Your task to perform on an android device: search for starred emails in the gmail app Image 0: 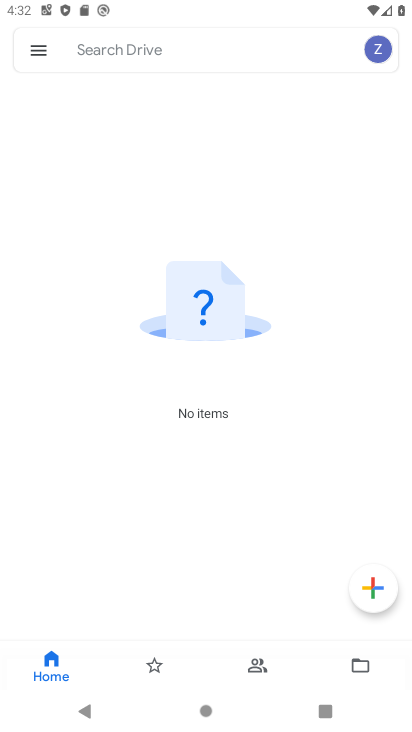
Step 0: press home button
Your task to perform on an android device: search for starred emails in the gmail app Image 1: 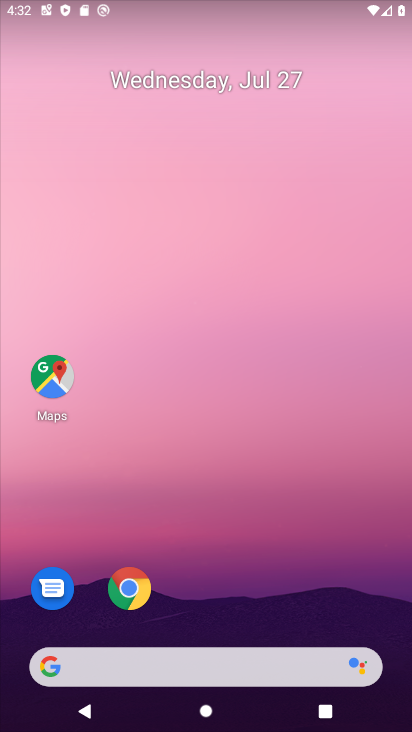
Step 1: drag from (231, 728) to (242, 82)
Your task to perform on an android device: search for starred emails in the gmail app Image 2: 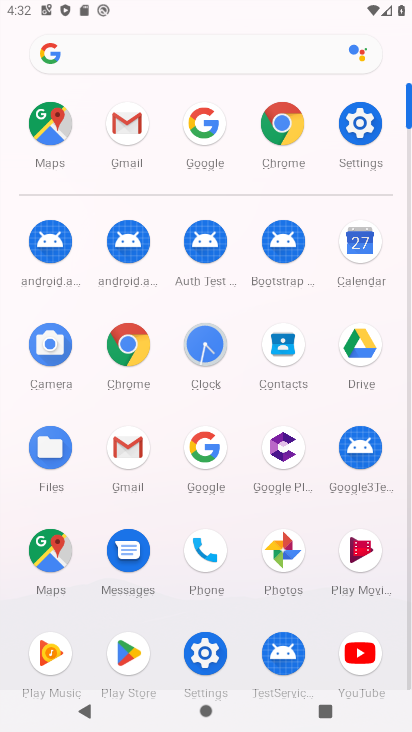
Step 2: click (129, 448)
Your task to perform on an android device: search for starred emails in the gmail app Image 3: 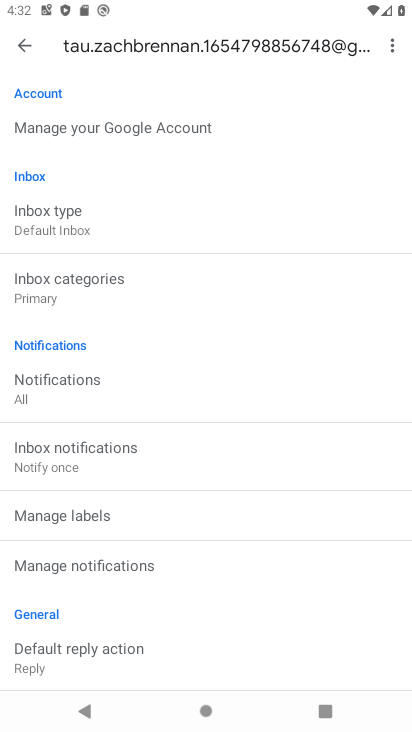
Step 3: click (24, 45)
Your task to perform on an android device: search for starred emails in the gmail app Image 4: 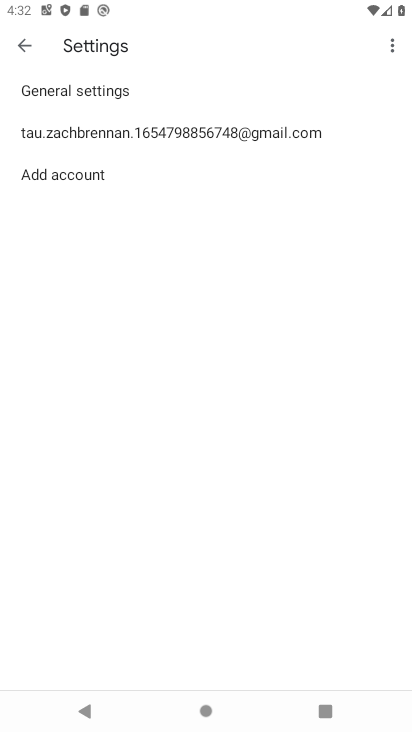
Step 4: click (25, 44)
Your task to perform on an android device: search for starred emails in the gmail app Image 5: 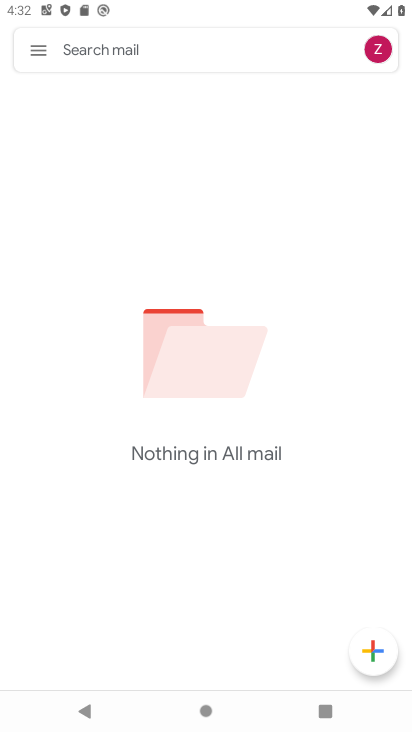
Step 5: click (37, 49)
Your task to perform on an android device: search for starred emails in the gmail app Image 6: 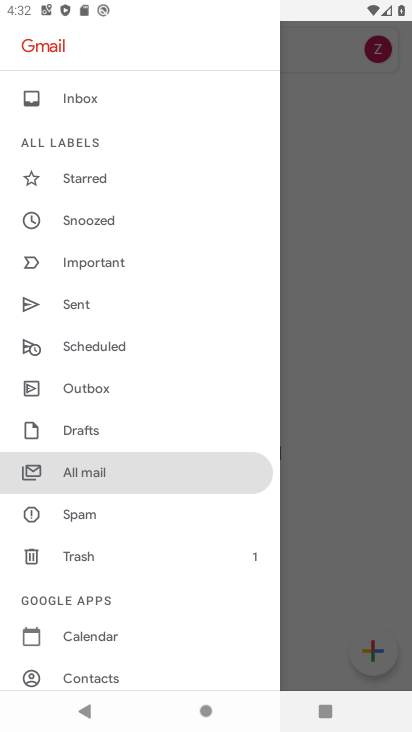
Step 6: click (75, 178)
Your task to perform on an android device: search for starred emails in the gmail app Image 7: 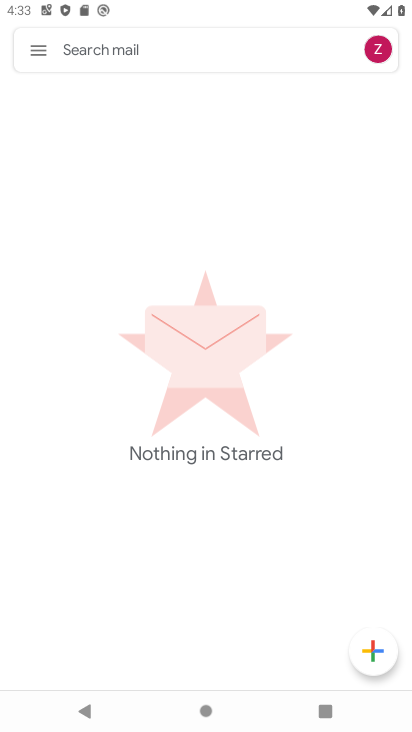
Step 7: task complete